Your task to perform on an android device: Open Wikipedia Image 0: 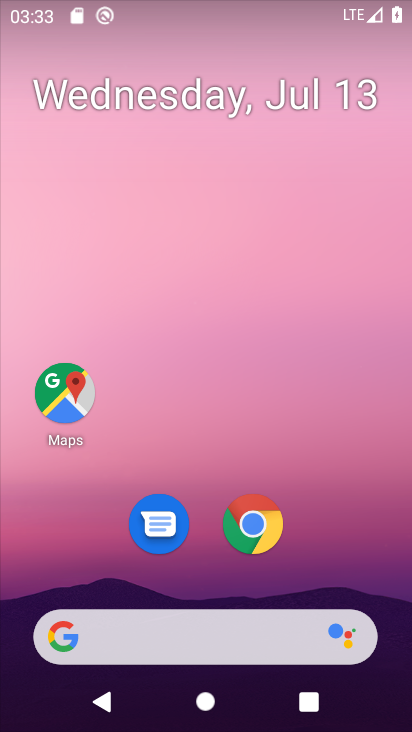
Step 0: click (265, 521)
Your task to perform on an android device: Open Wikipedia Image 1: 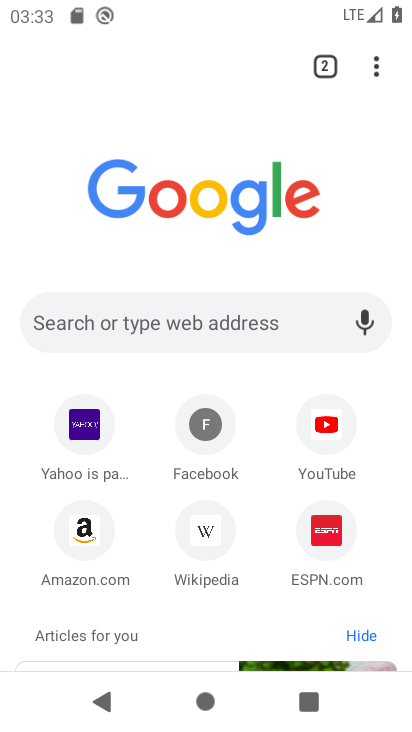
Step 1: click (204, 520)
Your task to perform on an android device: Open Wikipedia Image 2: 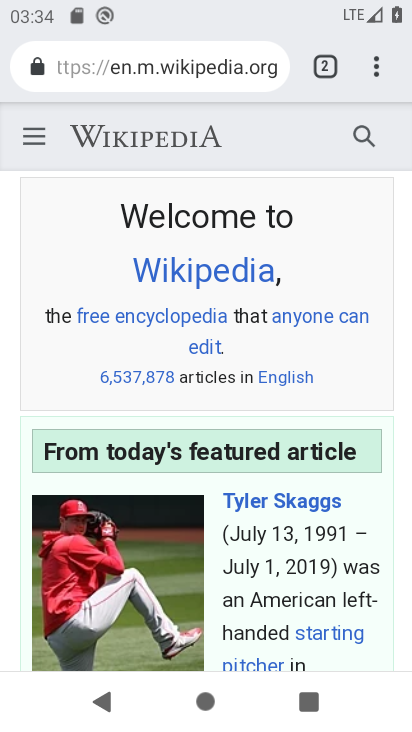
Step 2: task complete